Your task to perform on an android device: turn on the 24-hour format for clock Image 0: 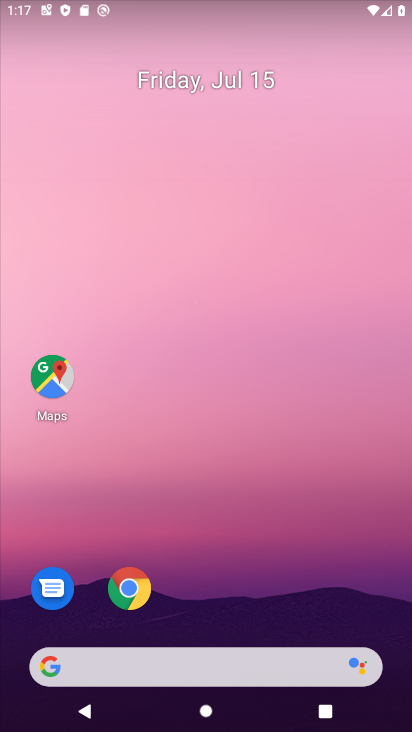
Step 0: drag from (361, 603) to (308, 47)
Your task to perform on an android device: turn on the 24-hour format for clock Image 1: 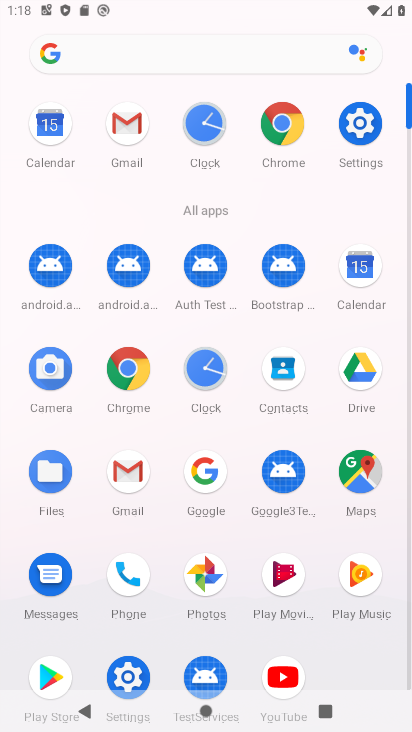
Step 1: click (204, 368)
Your task to perform on an android device: turn on the 24-hour format for clock Image 2: 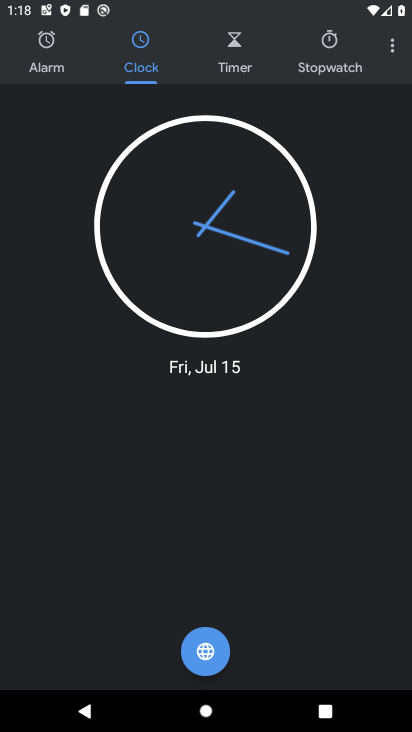
Step 2: click (392, 51)
Your task to perform on an android device: turn on the 24-hour format for clock Image 3: 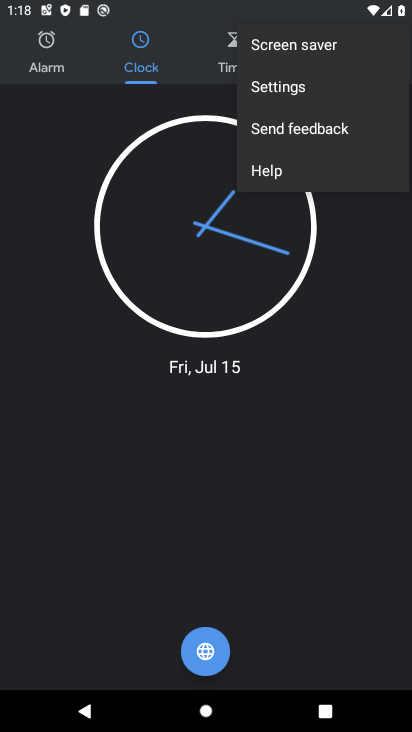
Step 3: click (274, 81)
Your task to perform on an android device: turn on the 24-hour format for clock Image 4: 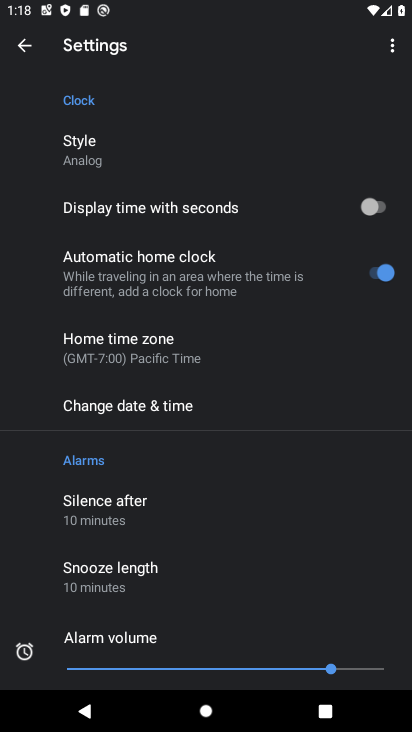
Step 4: click (151, 405)
Your task to perform on an android device: turn on the 24-hour format for clock Image 5: 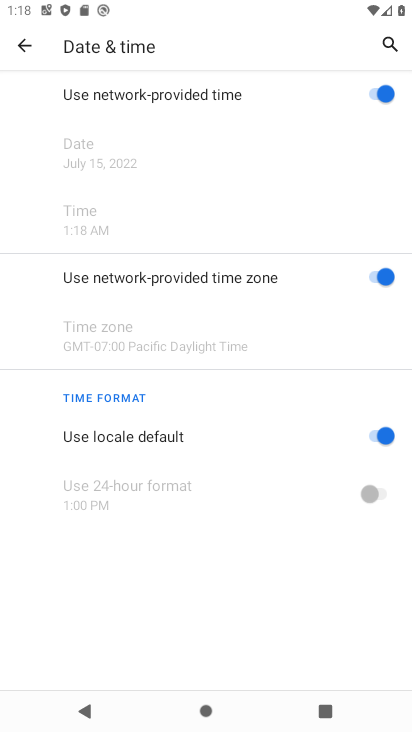
Step 5: click (373, 435)
Your task to perform on an android device: turn on the 24-hour format for clock Image 6: 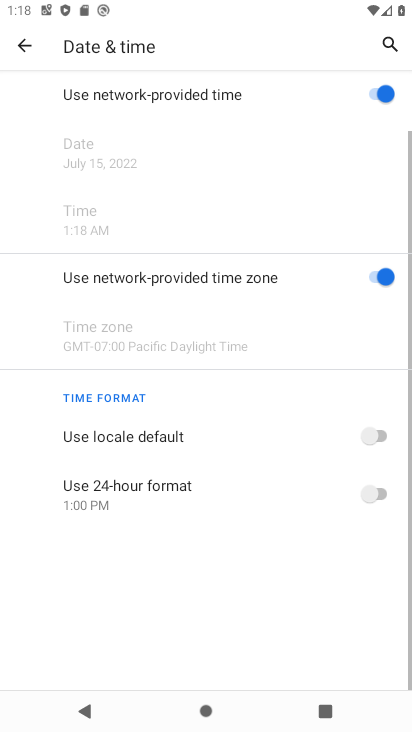
Step 6: click (381, 497)
Your task to perform on an android device: turn on the 24-hour format for clock Image 7: 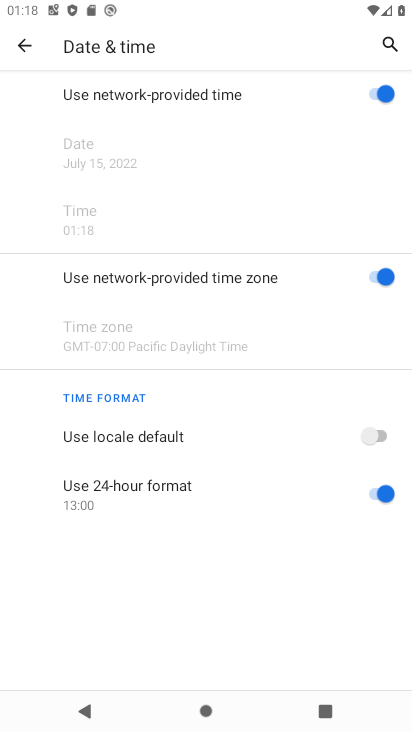
Step 7: task complete